Your task to perform on an android device: Go to Google maps Image 0: 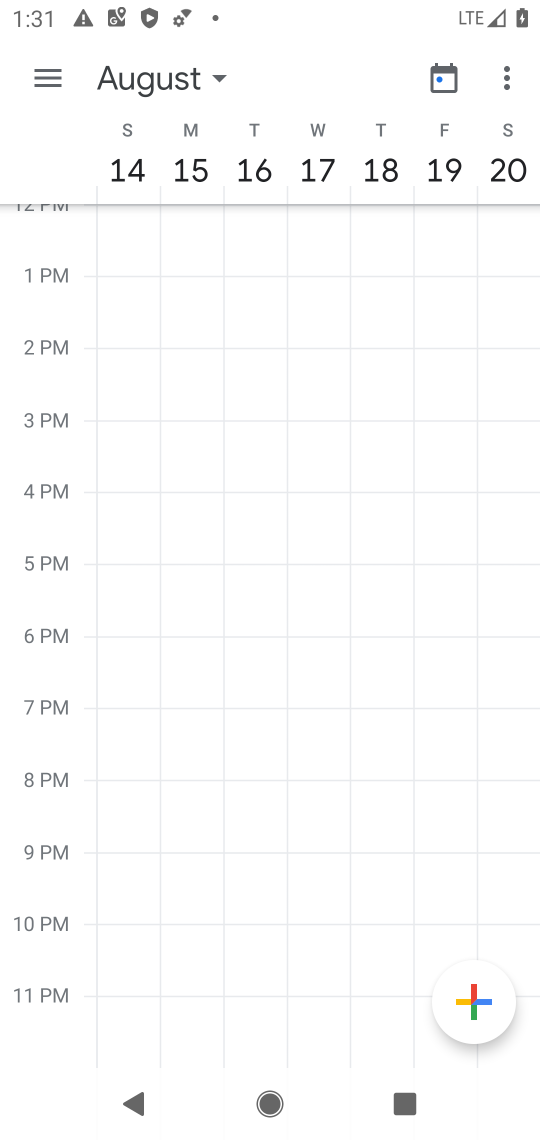
Step 0: press home button
Your task to perform on an android device: Go to Google maps Image 1: 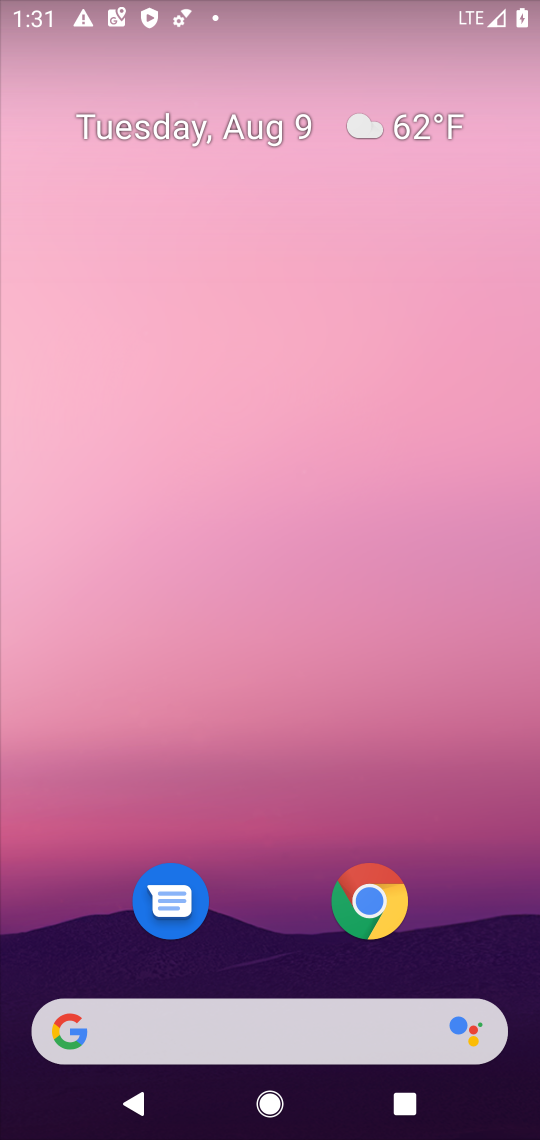
Step 1: drag from (502, 868) to (450, 225)
Your task to perform on an android device: Go to Google maps Image 2: 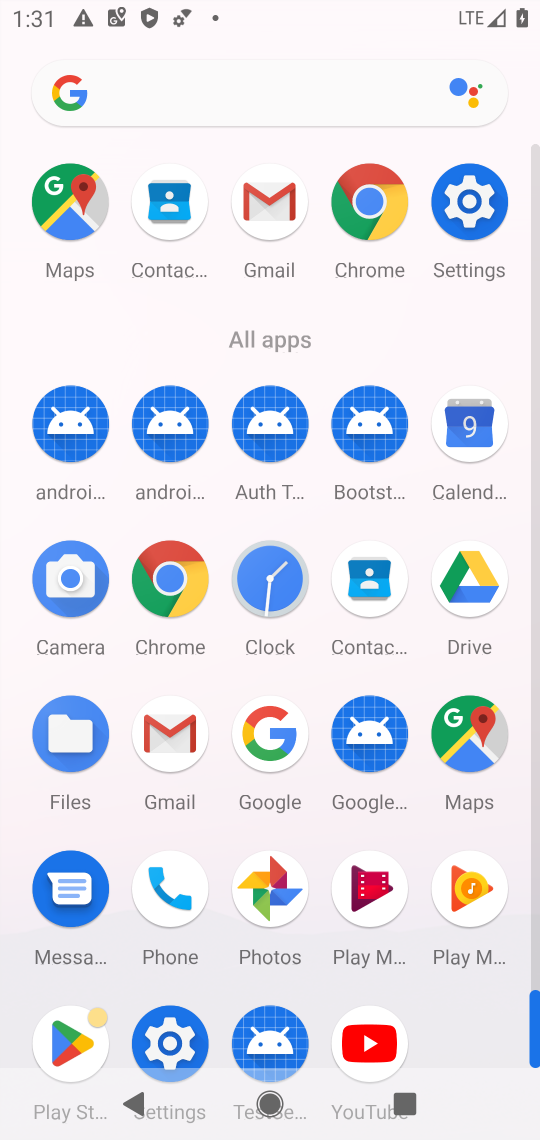
Step 2: click (474, 740)
Your task to perform on an android device: Go to Google maps Image 3: 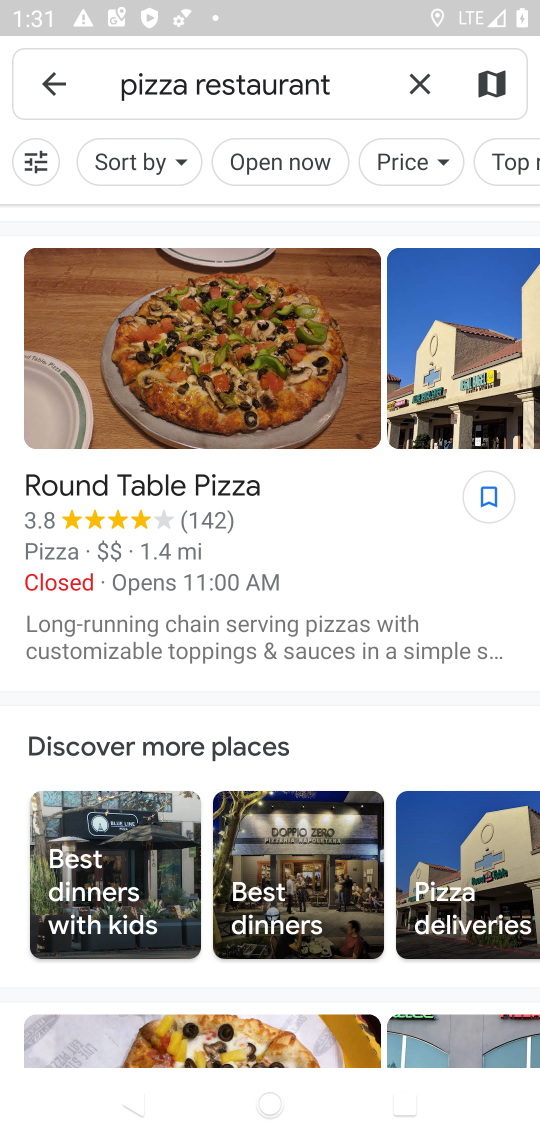
Step 3: click (415, 81)
Your task to perform on an android device: Go to Google maps Image 4: 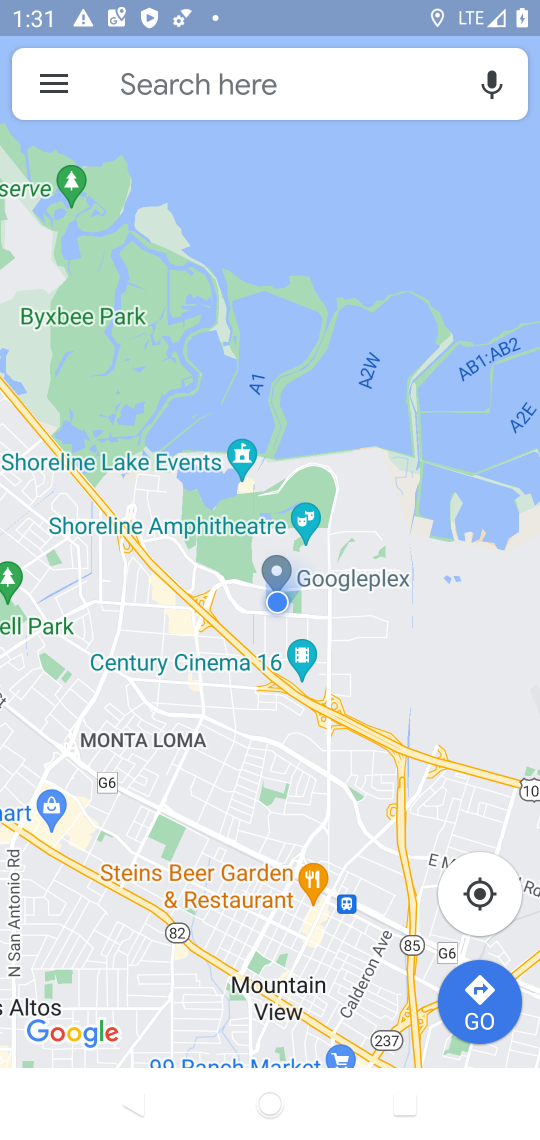
Step 4: task complete